Your task to perform on an android device: Go to CNN.com Image 0: 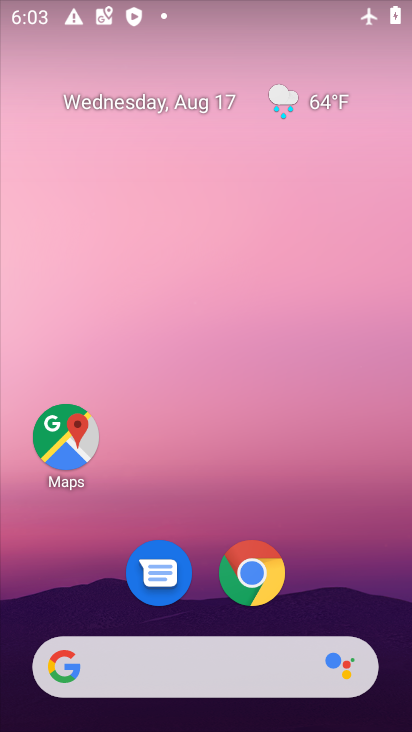
Step 0: drag from (358, 566) to (265, 214)
Your task to perform on an android device: Go to CNN.com Image 1: 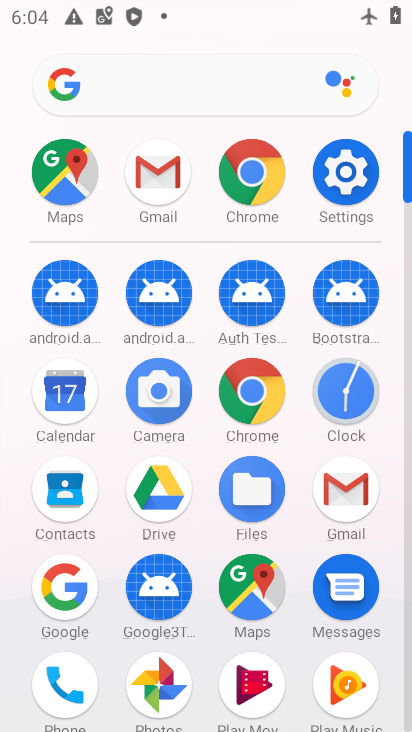
Step 1: click (232, 195)
Your task to perform on an android device: Go to CNN.com Image 2: 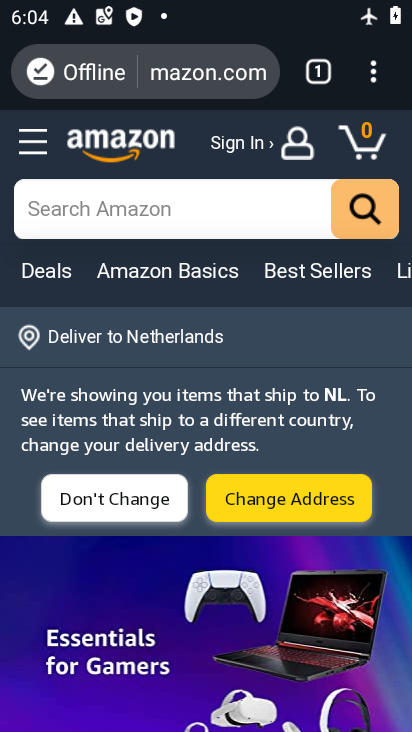
Step 2: click (204, 72)
Your task to perform on an android device: Go to CNN.com Image 3: 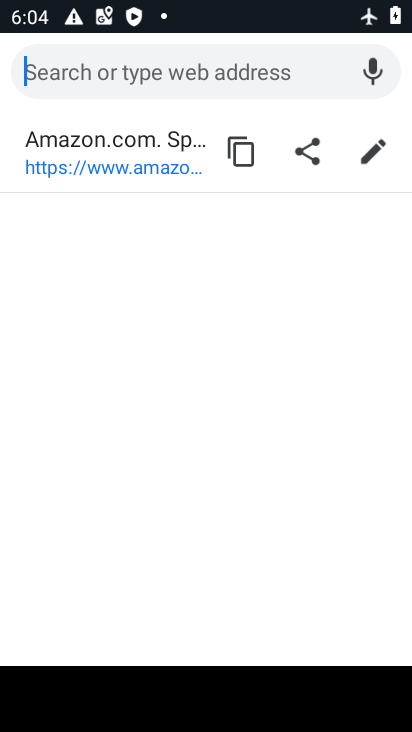
Step 3: type "CNN.com"
Your task to perform on an android device: Go to CNN.com Image 4: 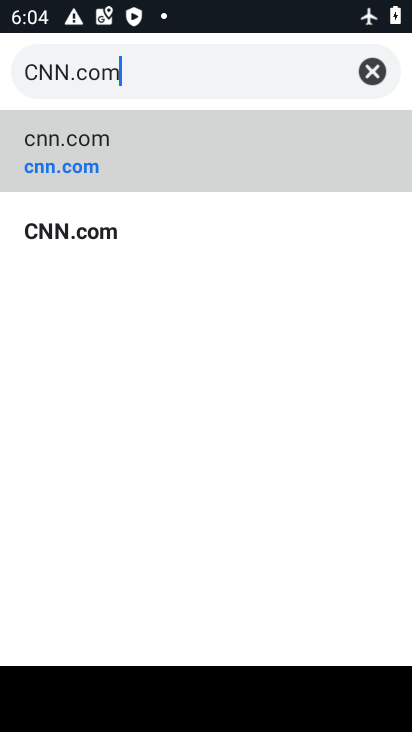
Step 4: click (44, 171)
Your task to perform on an android device: Go to CNN.com Image 5: 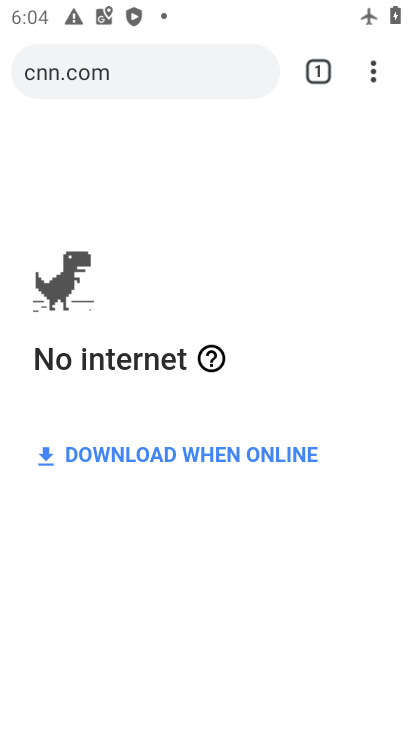
Step 5: task complete